Your task to perform on an android device: open the mobile data screen to see how much data has been used Image 0: 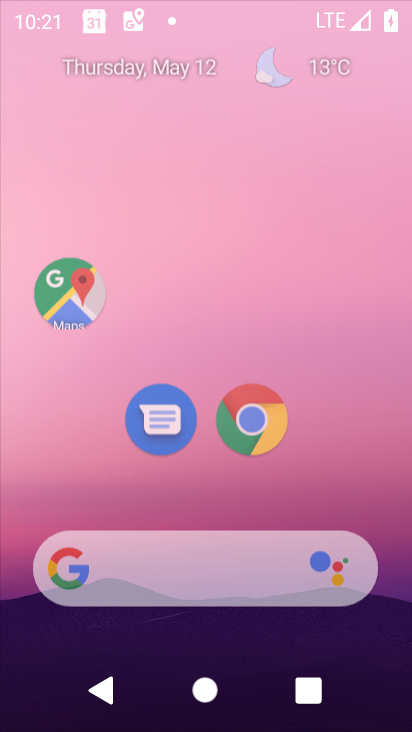
Step 0: drag from (251, 567) to (303, 18)
Your task to perform on an android device: open the mobile data screen to see how much data has been used Image 1: 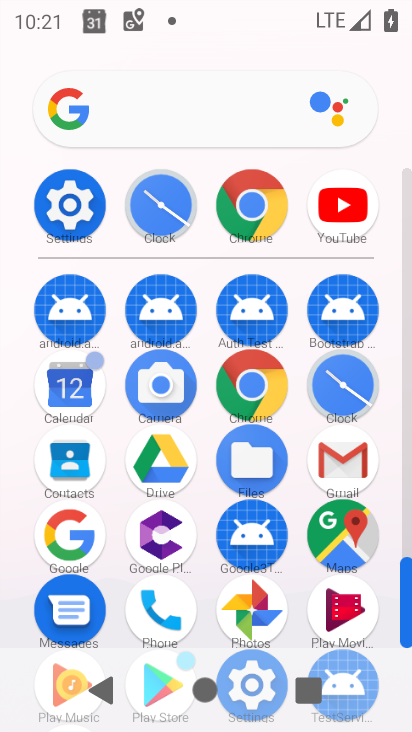
Step 1: click (272, 394)
Your task to perform on an android device: open the mobile data screen to see how much data has been used Image 2: 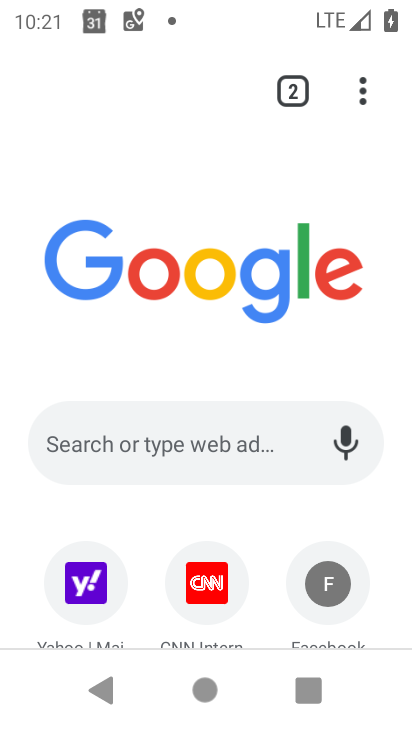
Step 2: task complete